Your task to perform on an android device: Open battery settings Image 0: 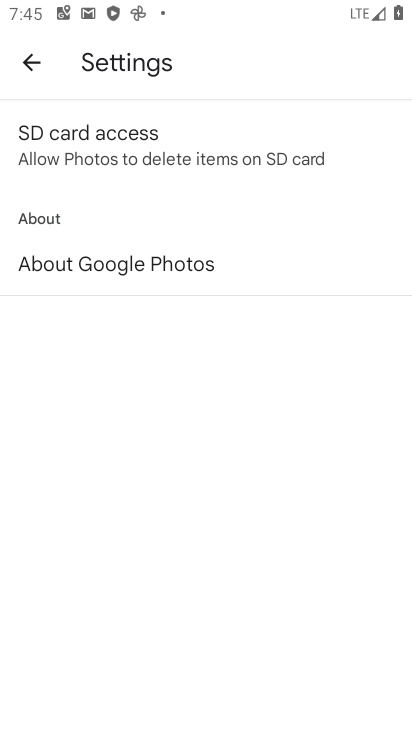
Step 0: press home button
Your task to perform on an android device: Open battery settings Image 1: 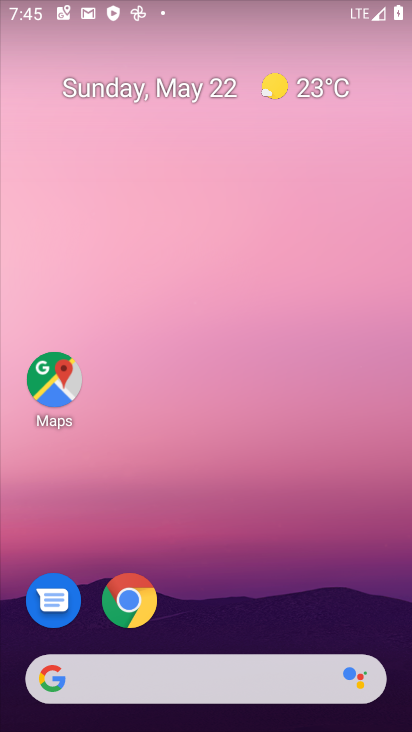
Step 1: drag from (389, 616) to (255, 126)
Your task to perform on an android device: Open battery settings Image 2: 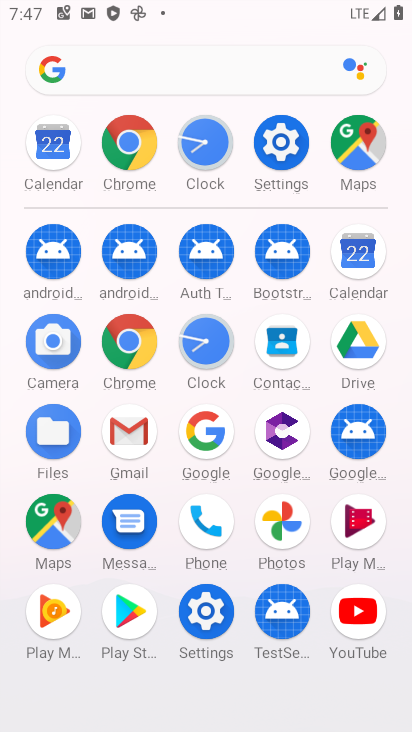
Step 2: click (208, 620)
Your task to perform on an android device: Open battery settings Image 3: 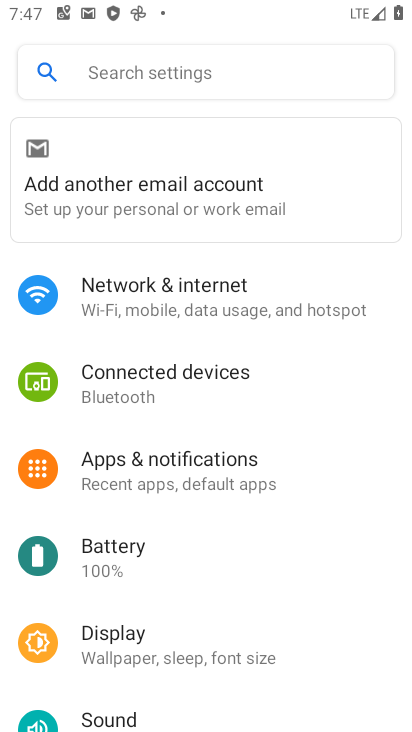
Step 3: drag from (148, 684) to (213, 354)
Your task to perform on an android device: Open battery settings Image 4: 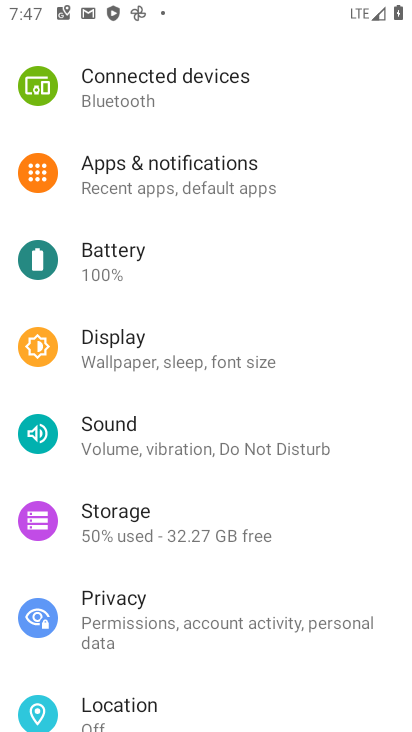
Step 4: click (105, 243)
Your task to perform on an android device: Open battery settings Image 5: 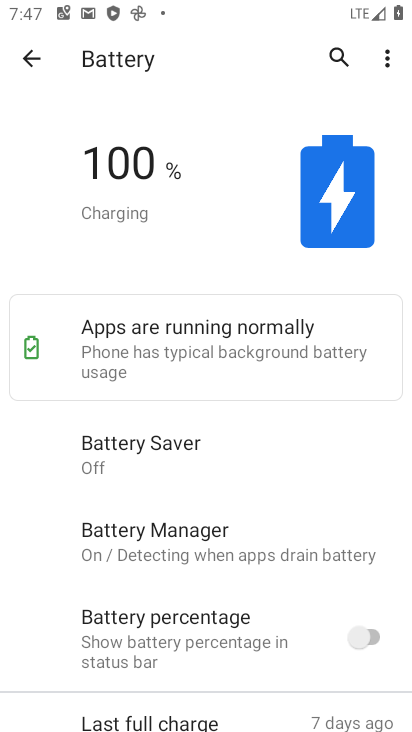
Step 5: task complete